Your task to perform on an android device: Is it going to rain tomorrow? Image 0: 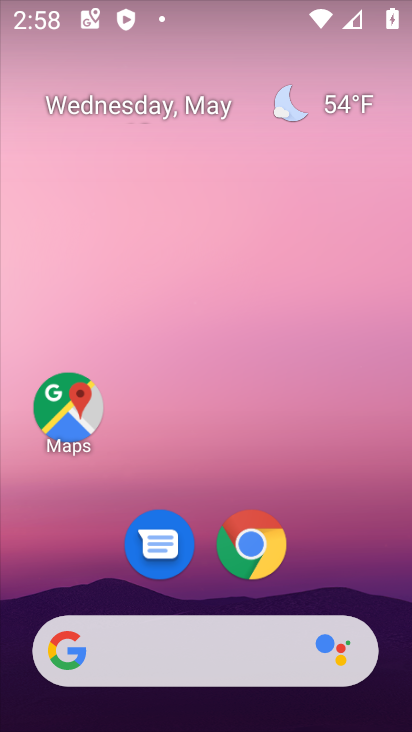
Step 0: click (220, 663)
Your task to perform on an android device: Is it going to rain tomorrow? Image 1: 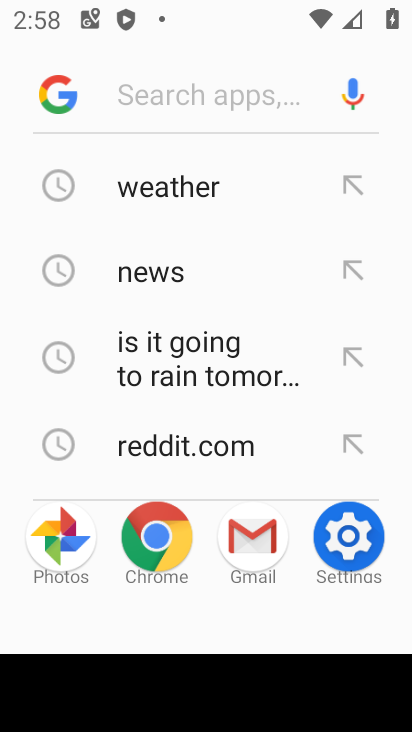
Step 1: click (223, 293)
Your task to perform on an android device: Is it going to rain tomorrow? Image 2: 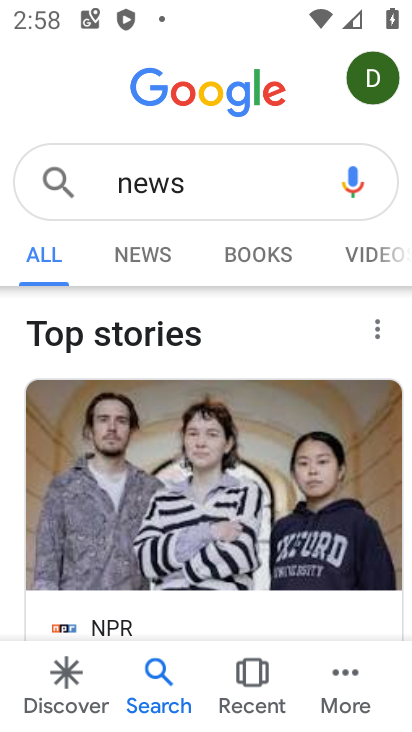
Step 2: task complete